Your task to perform on an android device: open a bookmark in the chrome app Image 0: 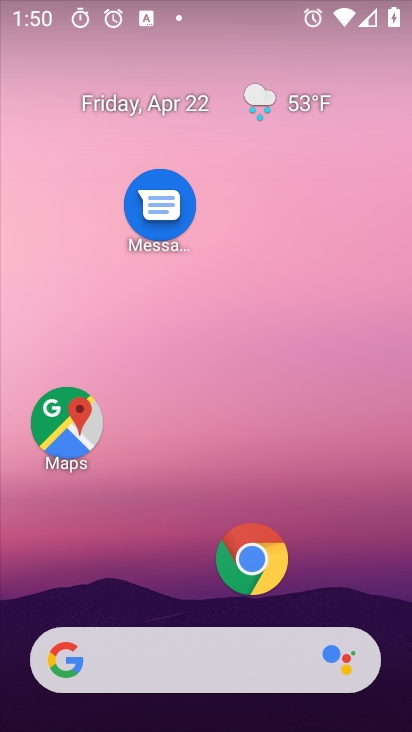
Step 0: click (260, 560)
Your task to perform on an android device: open a bookmark in the chrome app Image 1: 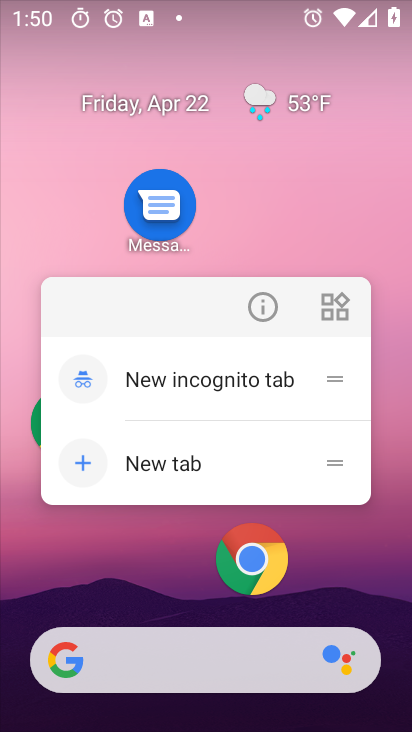
Step 1: click (260, 560)
Your task to perform on an android device: open a bookmark in the chrome app Image 2: 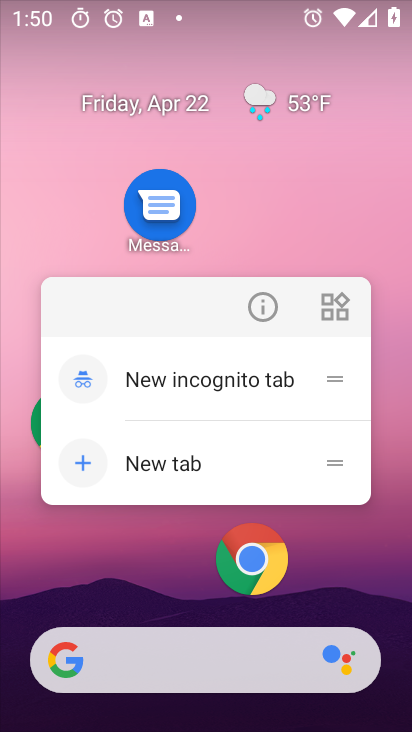
Step 2: click (256, 562)
Your task to perform on an android device: open a bookmark in the chrome app Image 3: 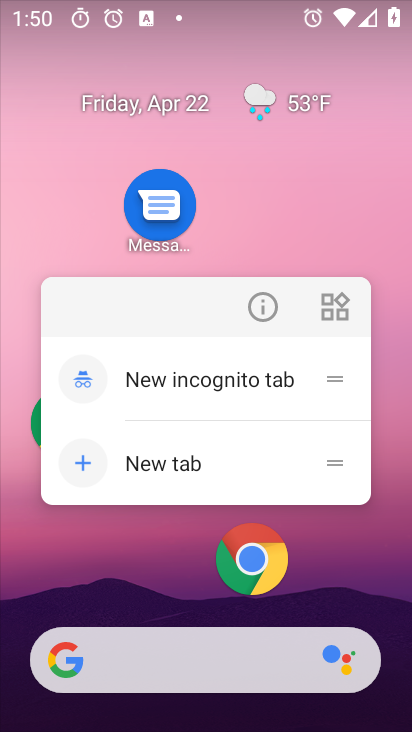
Step 3: click (256, 562)
Your task to perform on an android device: open a bookmark in the chrome app Image 4: 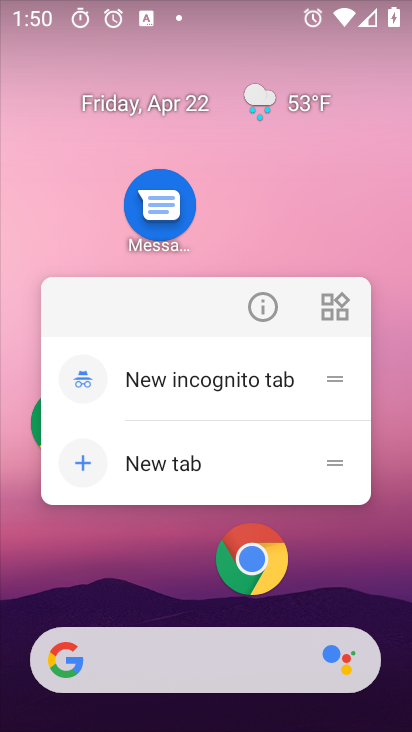
Step 4: click (248, 564)
Your task to perform on an android device: open a bookmark in the chrome app Image 5: 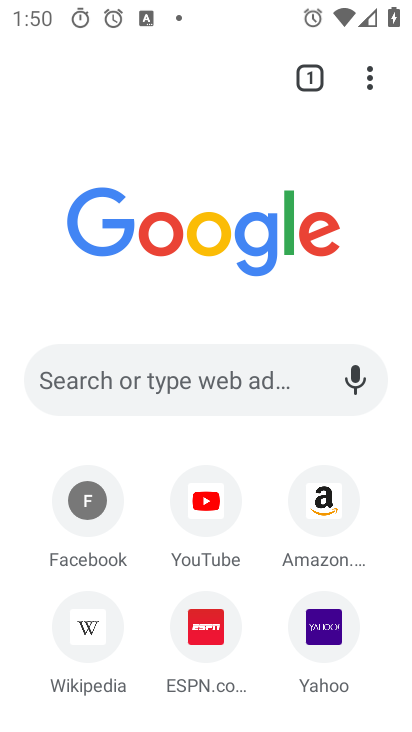
Step 5: click (364, 74)
Your task to perform on an android device: open a bookmark in the chrome app Image 6: 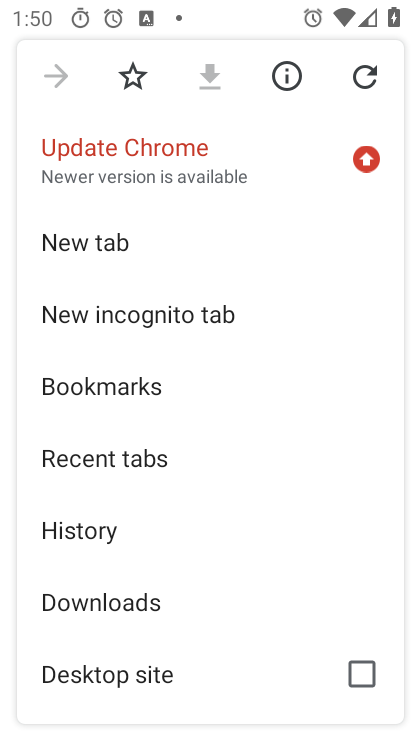
Step 6: click (144, 384)
Your task to perform on an android device: open a bookmark in the chrome app Image 7: 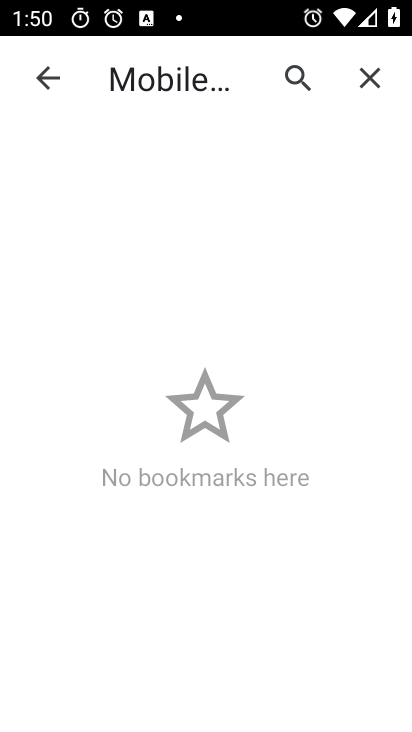
Step 7: task complete